Your task to perform on an android device: Open the stopwatch Image 0: 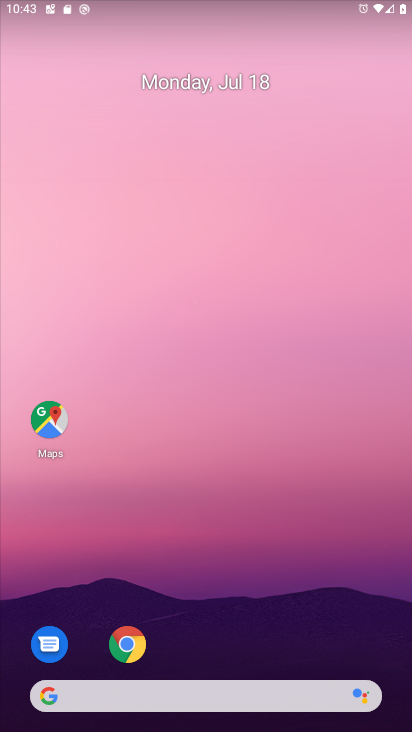
Step 0: drag from (187, 666) to (218, 11)
Your task to perform on an android device: Open the stopwatch Image 1: 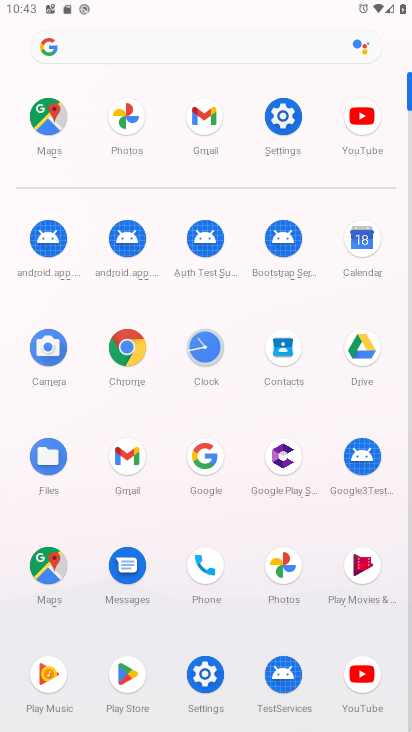
Step 1: click (202, 359)
Your task to perform on an android device: Open the stopwatch Image 2: 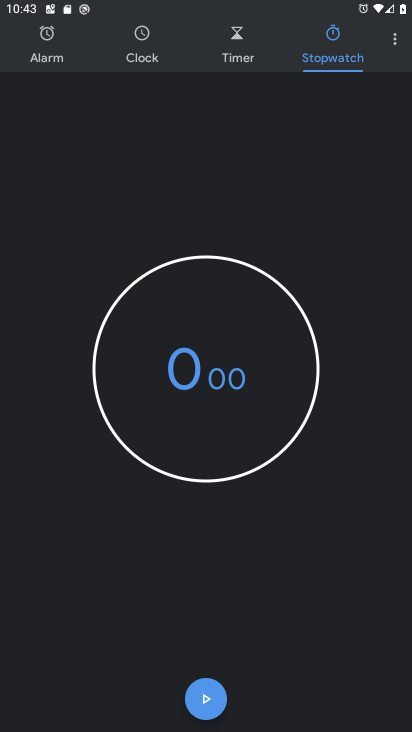
Step 2: task complete